Your task to perform on an android device: change notifications settings Image 0: 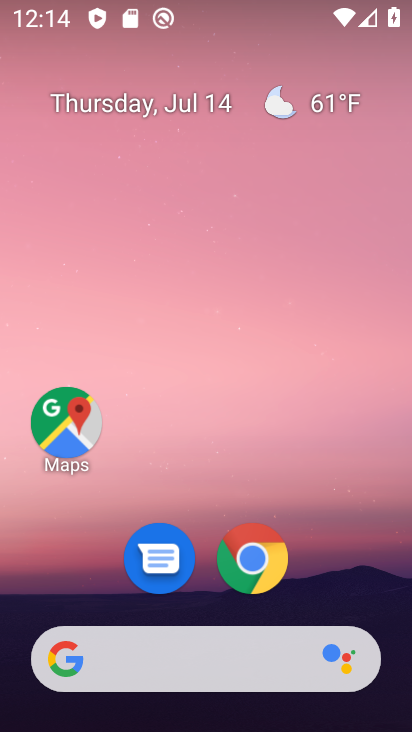
Step 0: drag from (192, 572) to (245, 8)
Your task to perform on an android device: change notifications settings Image 1: 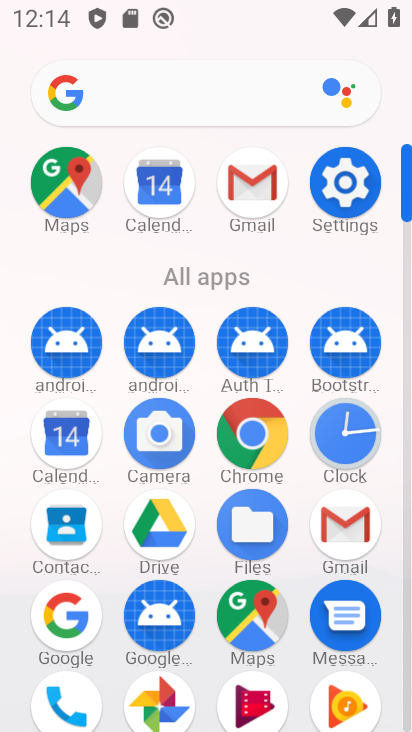
Step 1: click (340, 184)
Your task to perform on an android device: change notifications settings Image 2: 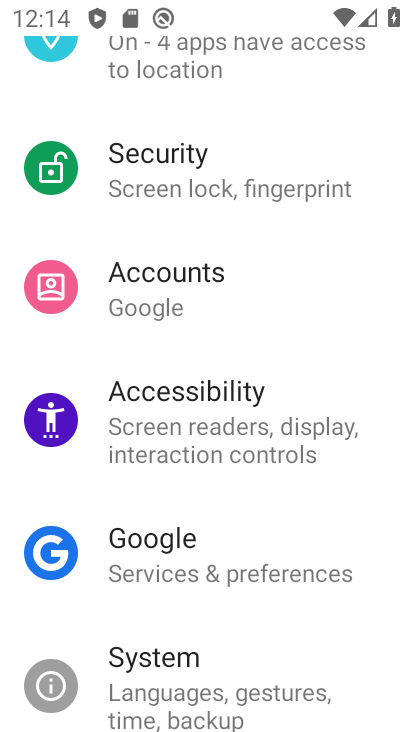
Step 2: drag from (185, 82) to (190, 710)
Your task to perform on an android device: change notifications settings Image 3: 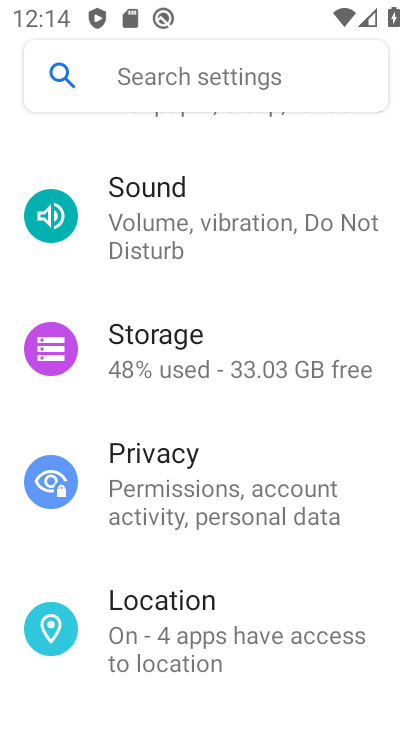
Step 3: drag from (147, 153) to (240, 705)
Your task to perform on an android device: change notifications settings Image 4: 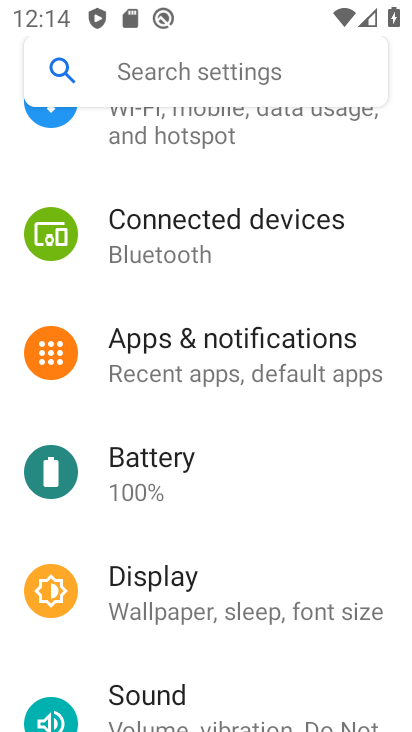
Step 4: click (233, 385)
Your task to perform on an android device: change notifications settings Image 5: 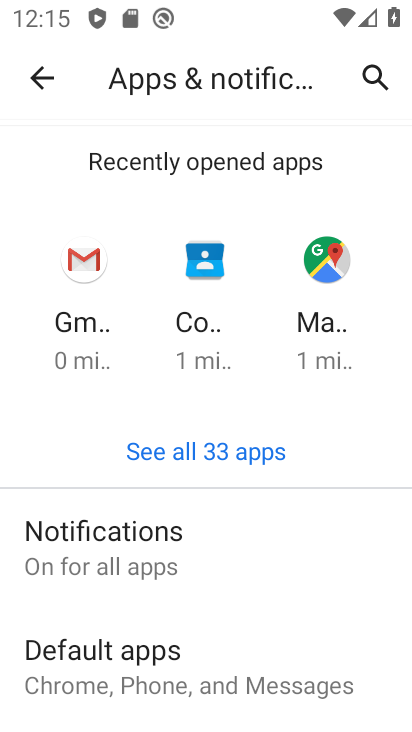
Step 5: click (145, 551)
Your task to perform on an android device: change notifications settings Image 6: 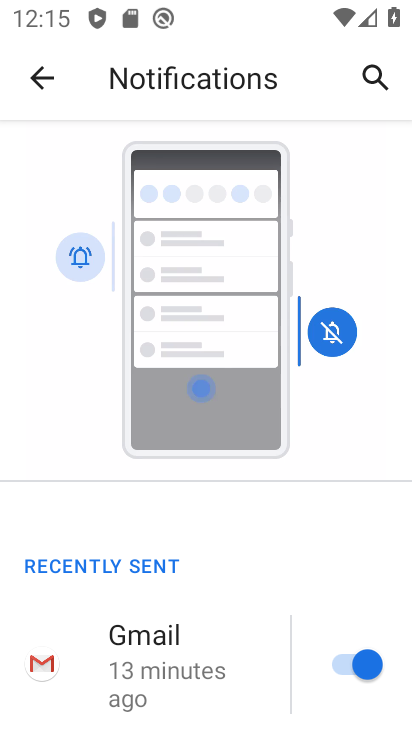
Step 6: drag from (164, 653) to (285, 103)
Your task to perform on an android device: change notifications settings Image 7: 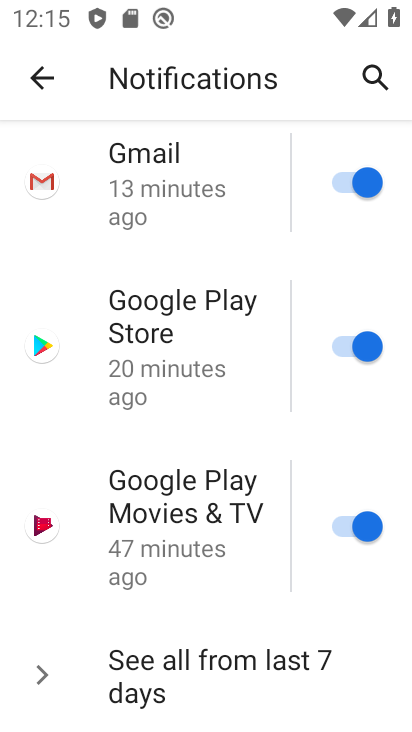
Step 7: drag from (183, 634) to (261, 104)
Your task to perform on an android device: change notifications settings Image 8: 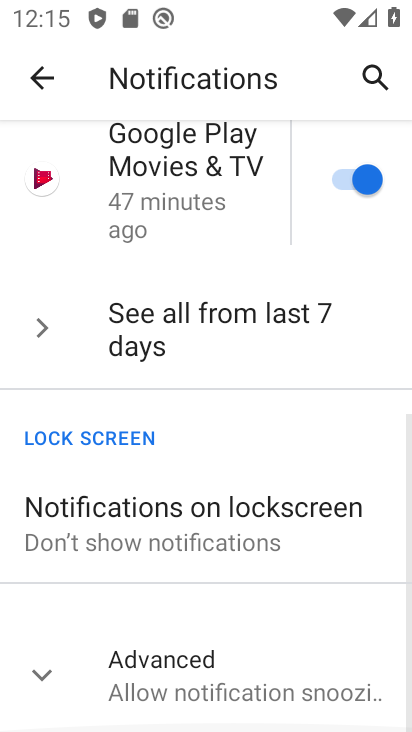
Step 8: click (186, 659)
Your task to perform on an android device: change notifications settings Image 9: 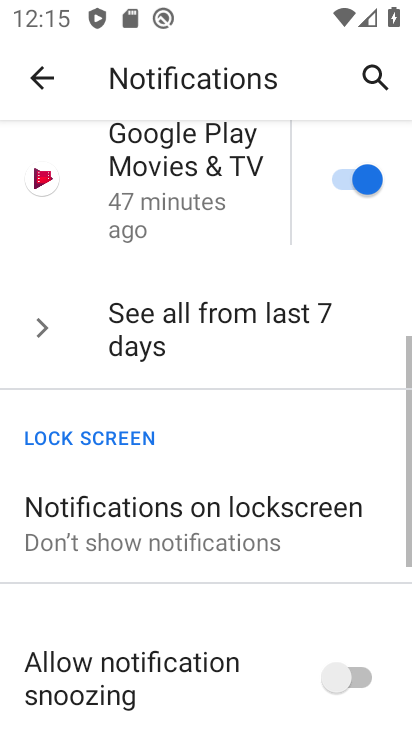
Step 9: click (333, 678)
Your task to perform on an android device: change notifications settings Image 10: 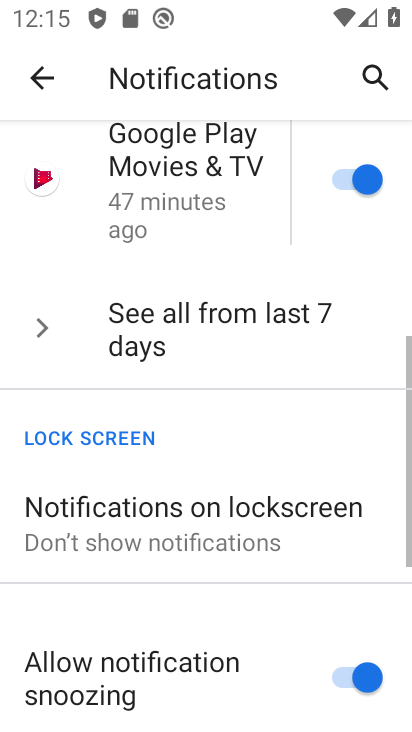
Step 10: task complete